Your task to perform on an android device: check data usage Image 0: 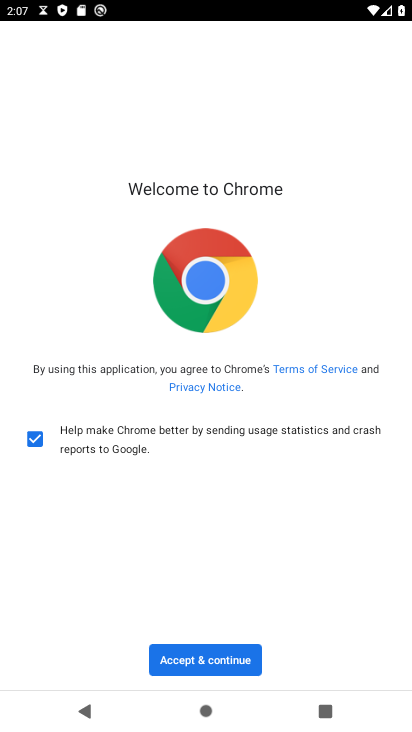
Step 0: press home button
Your task to perform on an android device: check data usage Image 1: 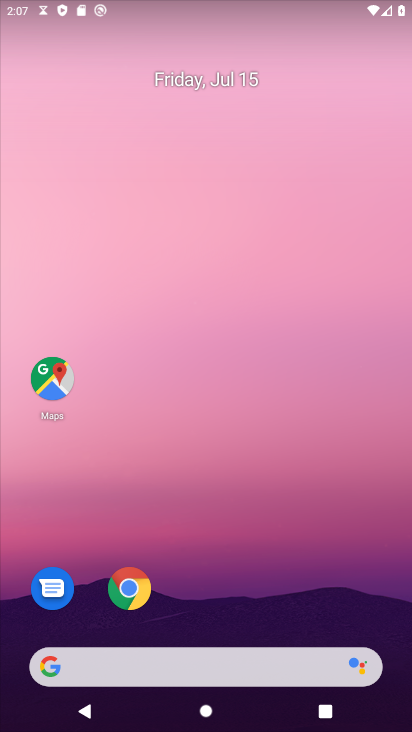
Step 1: drag from (263, 676) to (343, 268)
Your task to perform on an android device: check data usage Image 2: 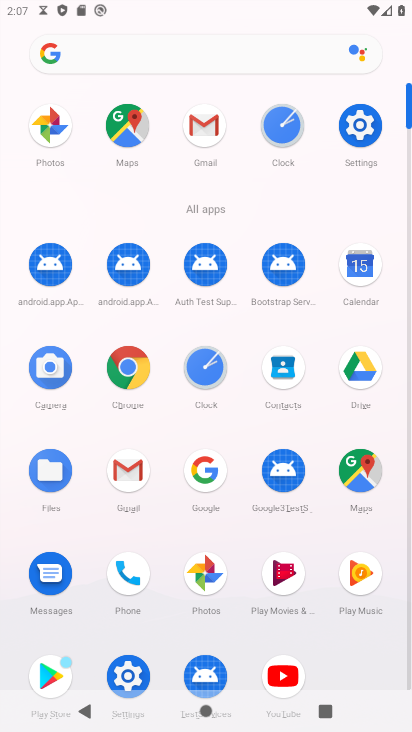
Step 2: click (365, 128)
Your task to perform on an android device: check data usage Image 3: 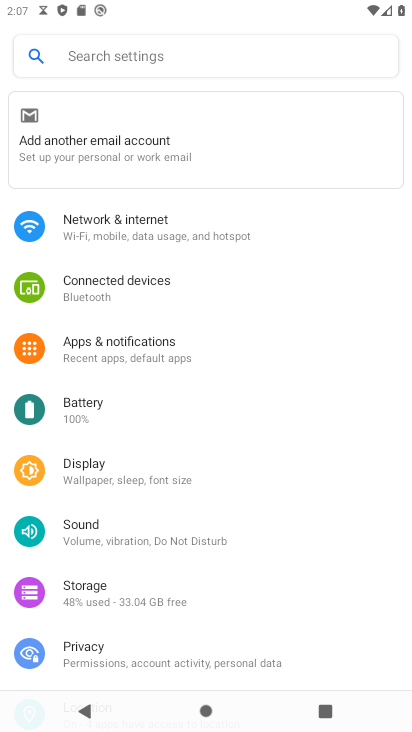
Step 3: click (118, 230)
Your task to perform on an android device: check data usage Image 4: 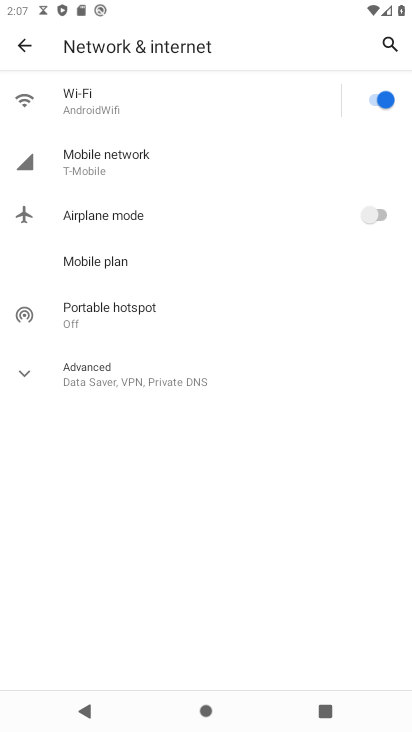
Step 4: click (128, 111)
Your task to perform on an android device: check data usage Image 5: 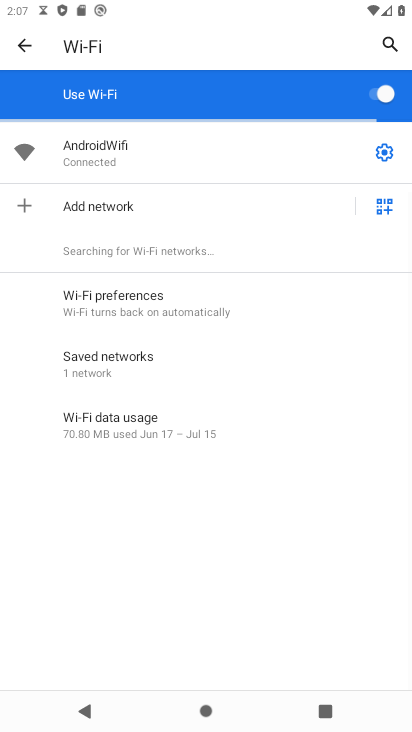
Step 5: click (142, 424)
Your task to perform on an android device: check data usage Image 6: 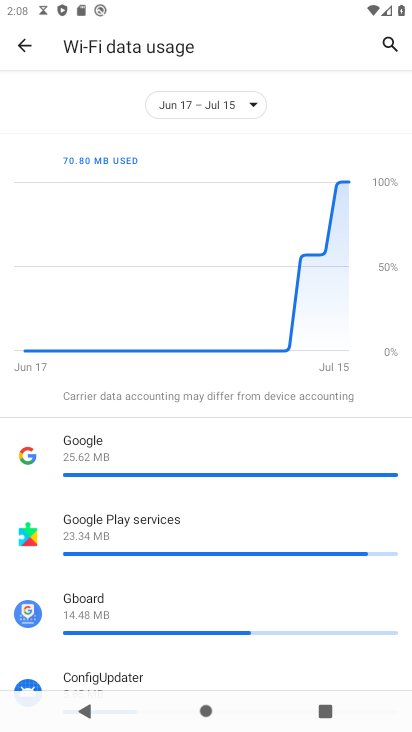
Step 6: task complete